Your task to perform on an android device: change notification settings in the gmail app Image 0: 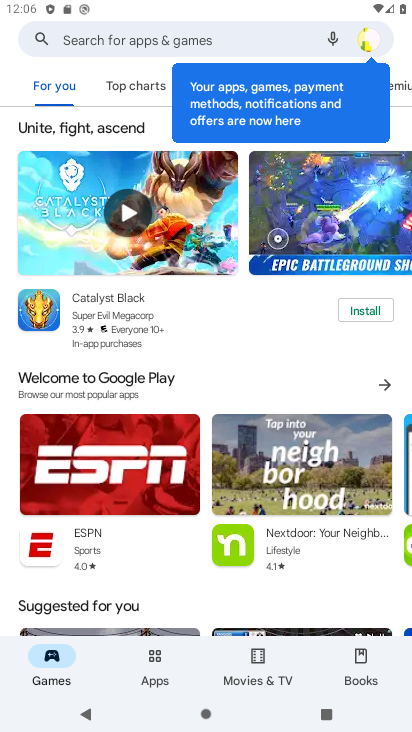
Step 0: press home button
Your task to perform on an android device: change notification settings in the gmail app Image 1: 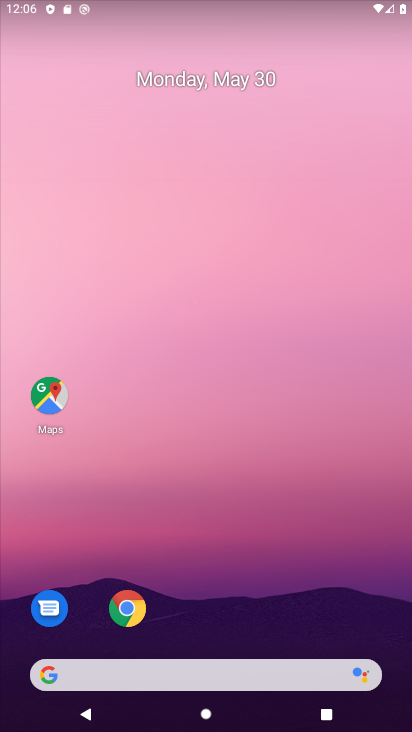
Step 1: drag from (262, 598) to (331, 20)
Your task to perform on an android device: change notification settings in the gmail app Image 2: 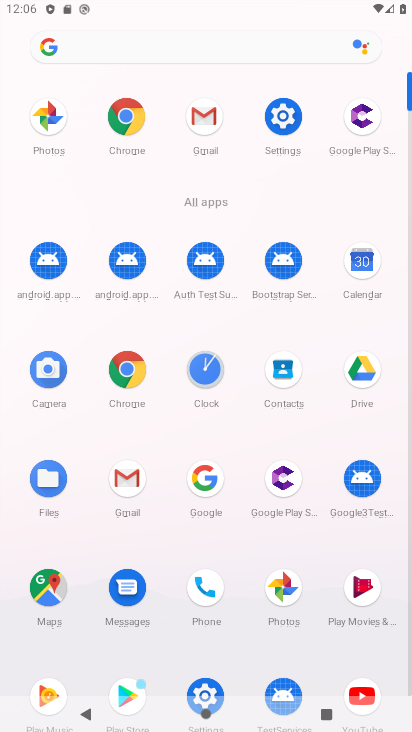
Step 2: click (200, 117)
Your task to perform on an android device: change notification settings in the gmail app Image 3: 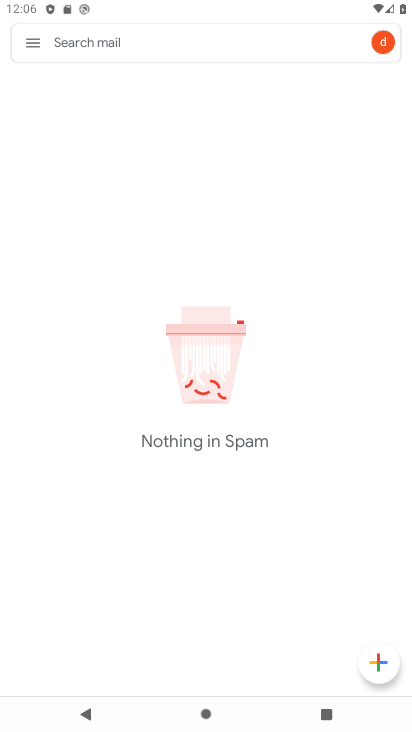
Step 3: click (38, 46)
Your task to perform on an android device: change notification settings in the gmail app Image 4: 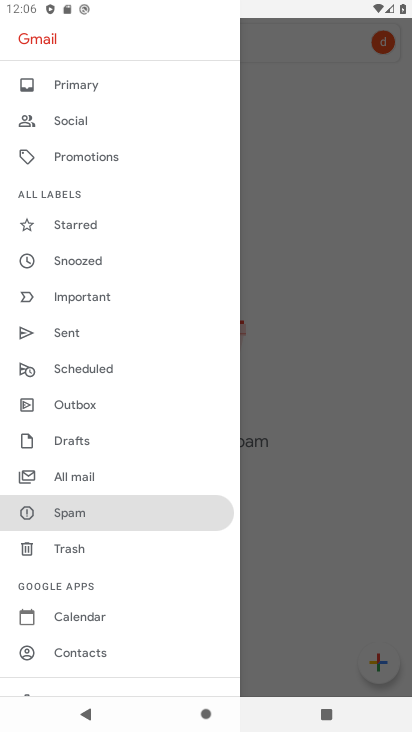
Step 4: drag from (142, 637) to (168, 357)
Your task to perform on an android device: change notification settings in the gmail app Image 5: 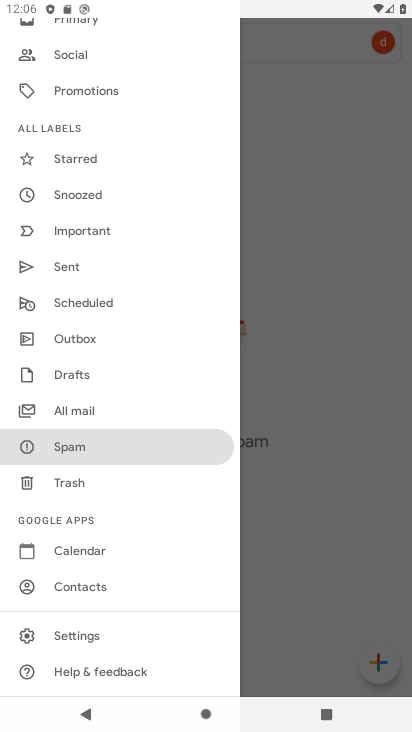
Step 5: click (85, 631)
Your task to perform on an android device: change notification settings in the gmail app Image 6: 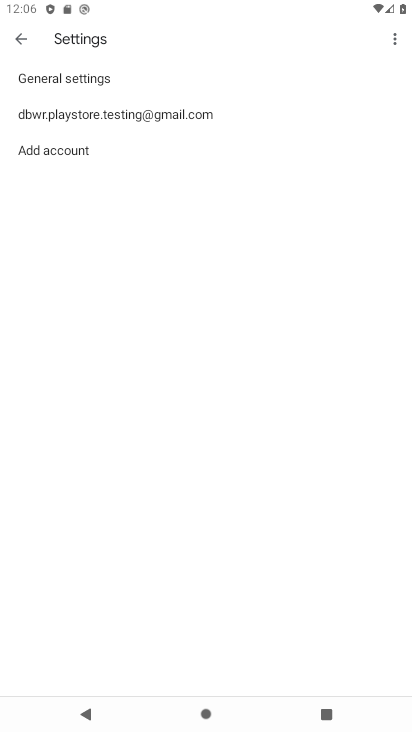
Step 6: click (67, 81)
Your task to perform on an android device: change notification settings in the gmail app Image 7: 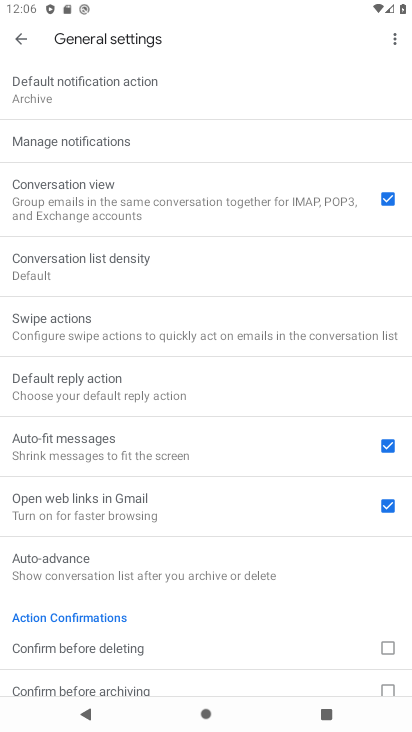
Step 7: click (115, 137)
Your task to perform on an android device: change notification settings in the gmail app Image 8: 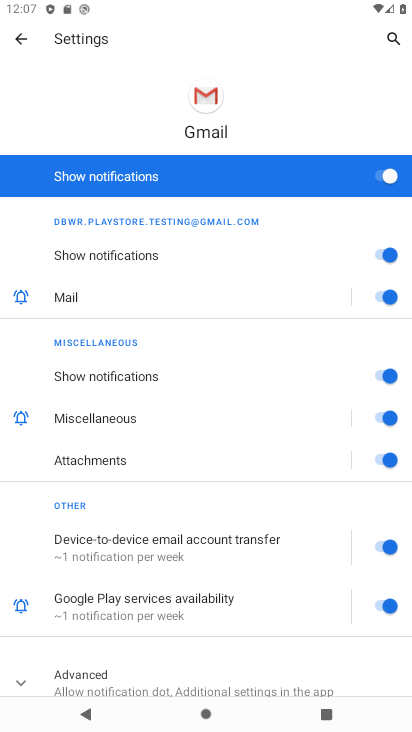
Step 8: click (378, 181)
Your task to perform on an android device: change notification settings in the gmail app Image 9: 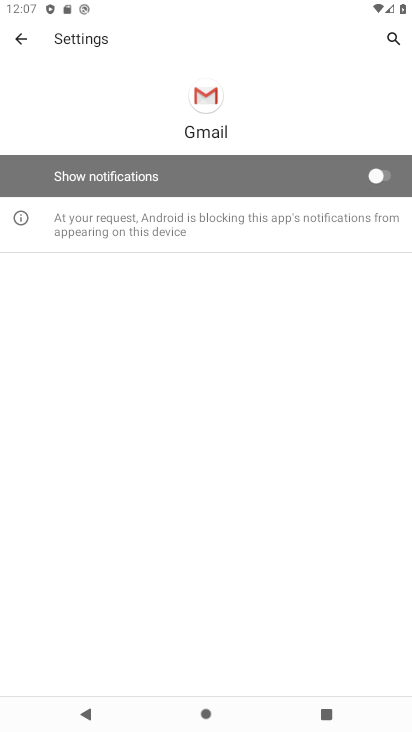
Step 9: task complete